Your task to perform on an android device: Set the phone to "Do not disturb". Image 0: 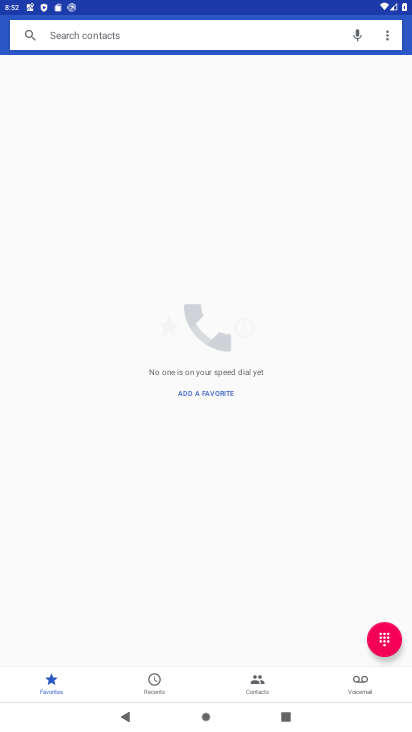
Step 0: press home button
Your task to perform on an android device: Set the phone to "Do not disturb". Image 1: 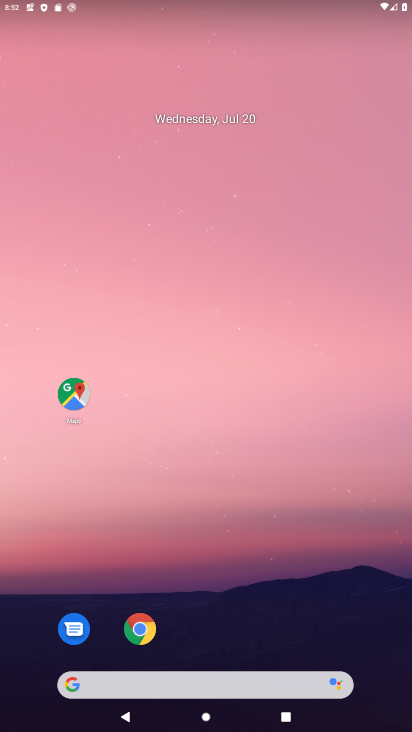
Step 1: drag from (387, 660) to (322, 123)
Your task to perform on an android device: Set the phone to "Do not disturb". Image 2: 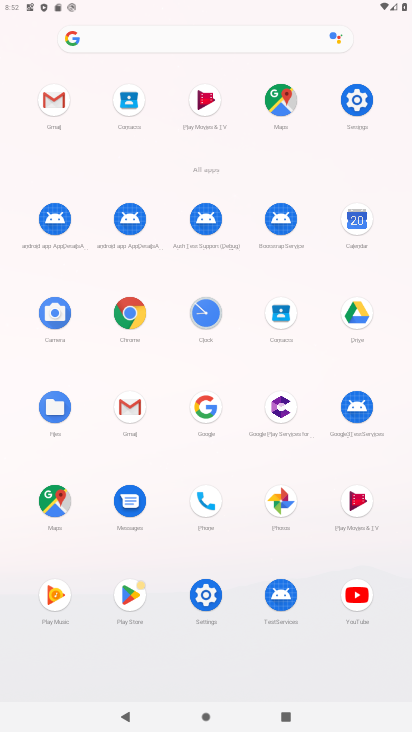
Step 2: click (208, 594)
Your task to perform on an android device: Set the phone to "Do not disturb". Image 3: 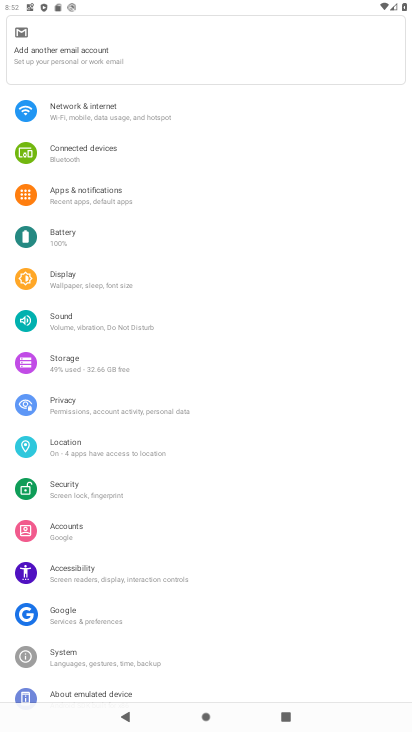
Step 3: click (72, 323)
Your task to perform on an android device: Set the phone to "Do not disturb". Image 4: 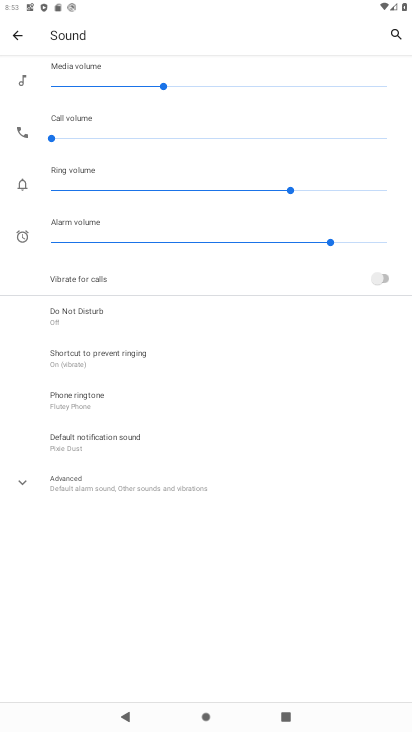
Step 4: click (66, 314)
Your task to perform on an android device: Set the phone to "Do not disturb". Image 5: 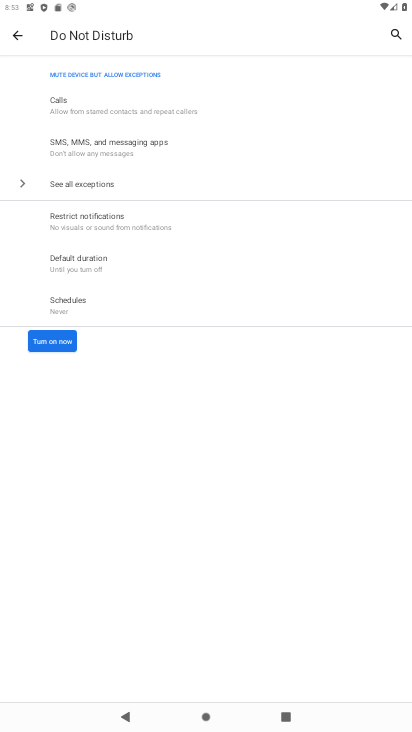
Step 5: click (49, 343)
Your task to perform on an android device: Set the phone to "Do not disturb". Image 6: 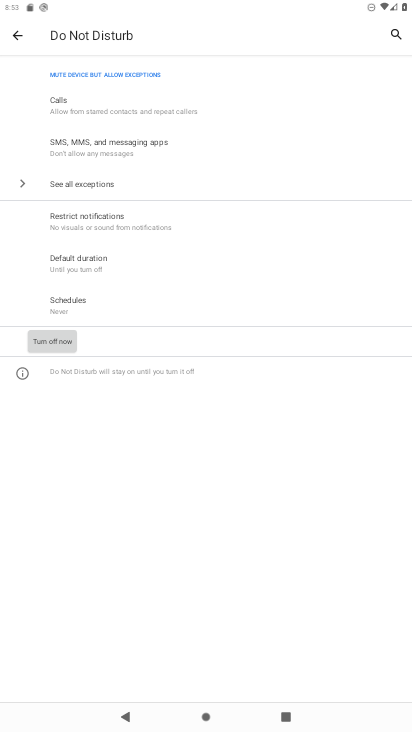
Step 6: task complete